Your task to perform on an android device: Search for Italian restaurants on Maps Image 0: 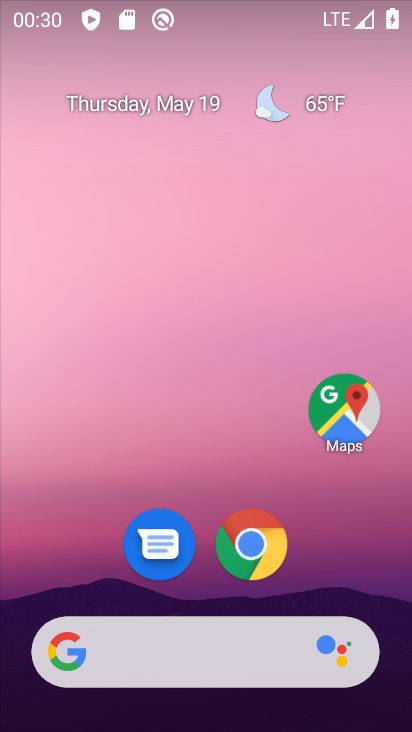
Step 0: drag from (367, 580) to (347, 117)
Your task to perform on an android device: Search for Italian restaurants on Maps Image 1: 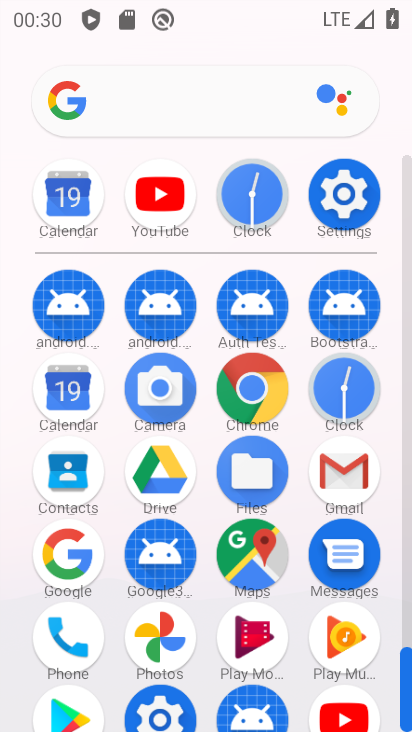
Step 1: drag from (291, 614) to (286, 398)
Your task to perform on an android device: Search for Italian restaurants on Maps Image 2: 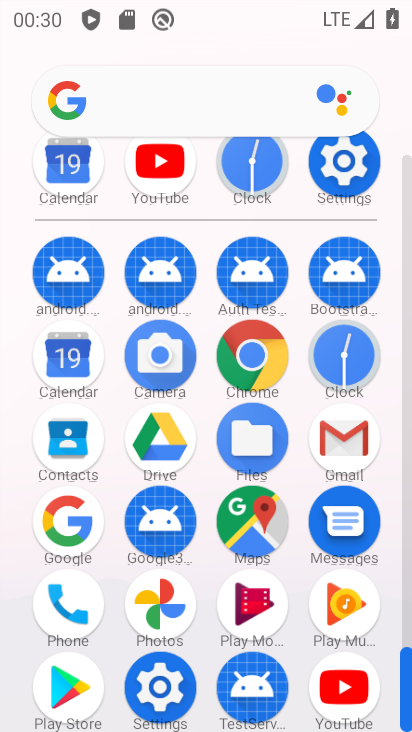
Step 2: drag from (388, 281) to (387, 391)
Your task to perform on an android device: Search for Italian restaurants on Maps Image 3: 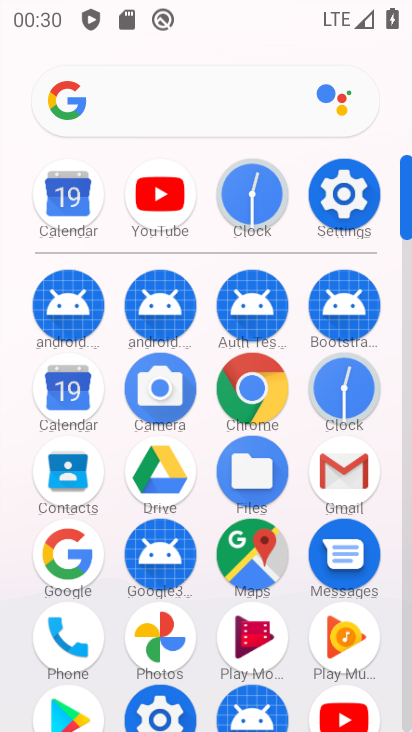
Step 3: click (258, 563)
Your task to perform on an android device: Search for Italian restaurants on Maps Image 4: 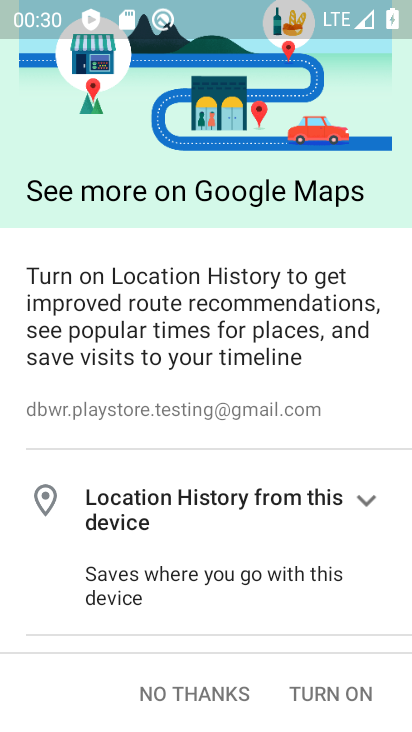
Step 4: click (209, 705)
Your task to perform on an android device: Search for Italian restaurants on Maps Image 5: 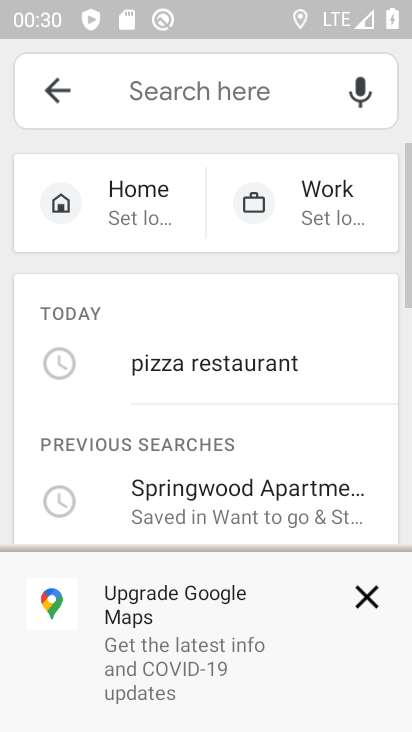
Step 5: click (174, 94)
Your task to perform on an android device: Search for Italian restaurants on Maps Image 6: 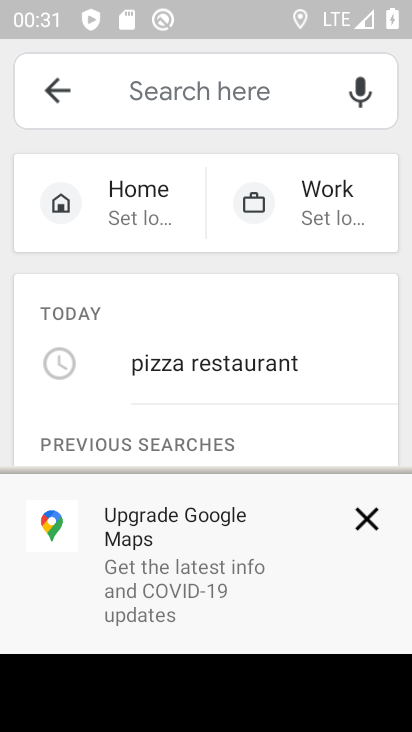
Step 6: type "italian restaurants"
Your task to perform on an android device: Search for Italian restaurants on Maps Image 7: 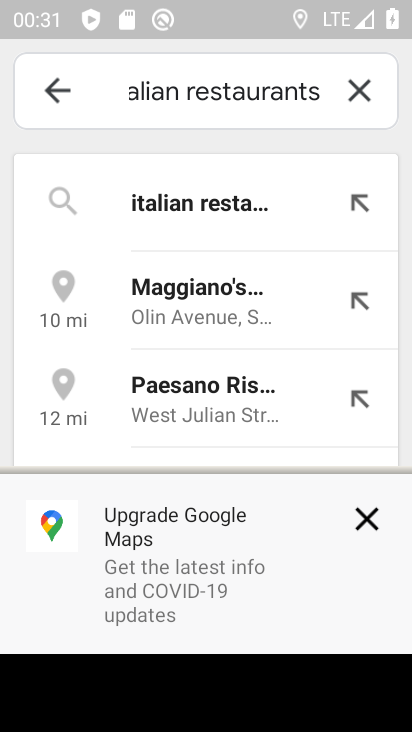
Step 7: click (134, 204)
Your task to perform on an android device: Search for Italian restaurants on Maps Image 8: 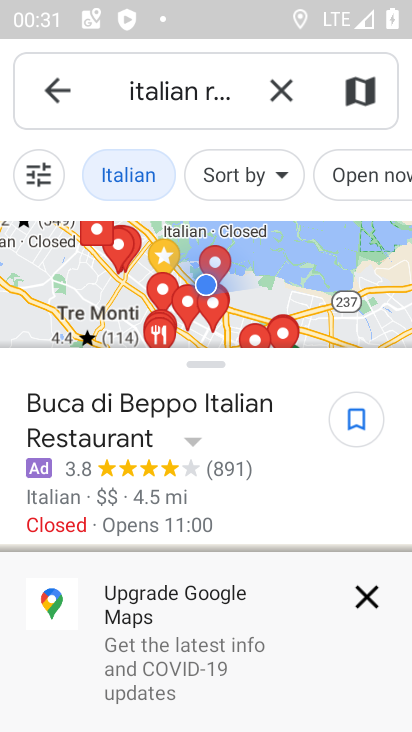
Step 8: task complete